Your task to perform on an android device: Open Chrome and go to settings Image 0: 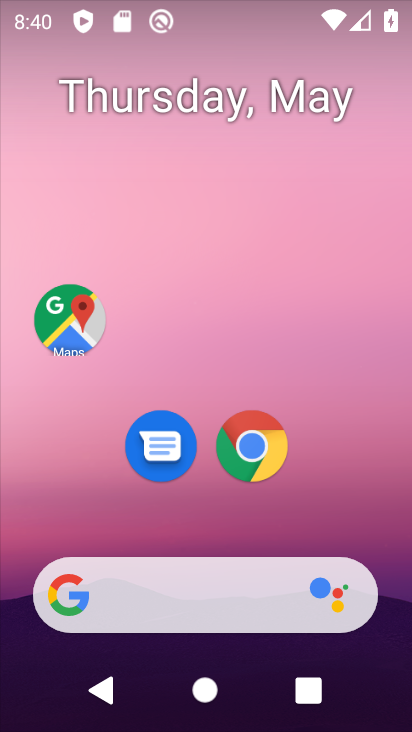
Step 0: click (249, 446)
Your task to perform on an android device: Open Chrome and go to settings Image 1: 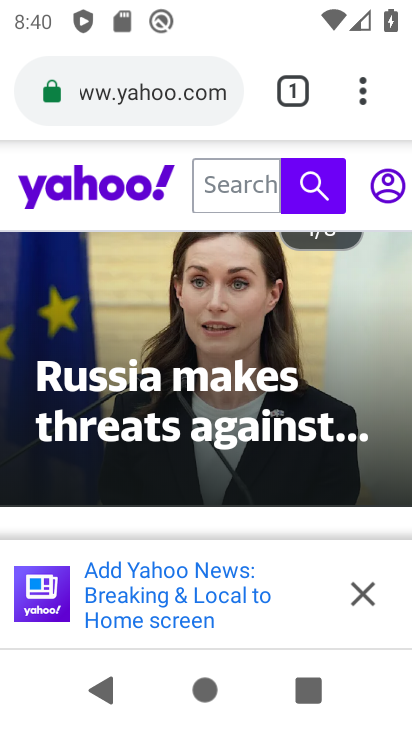
Step 1: click (363, 99)
Your task to perform on an android device: Open Chrome and go to settings Image 2: 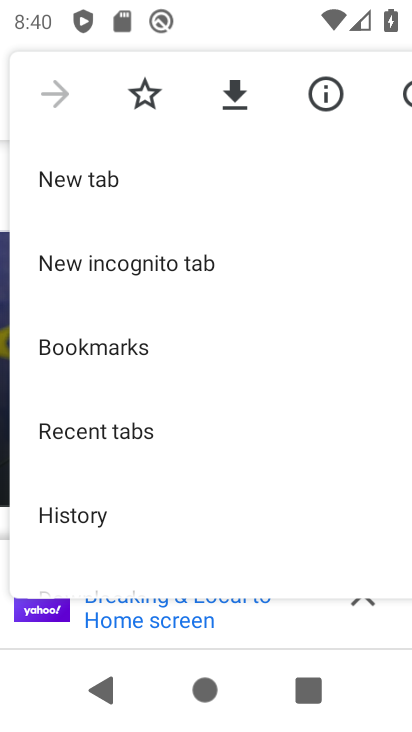
Step 2: drag from (169, 533) to (284, 89)
Your task to perform on an android device: Open Chrome and go to settings Image 3: 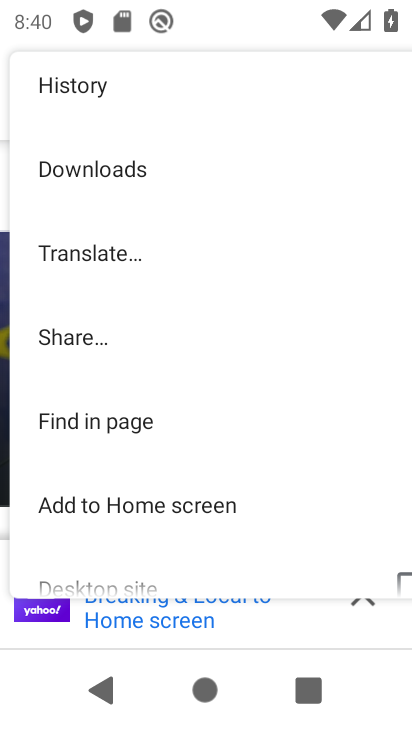
Step 3: drag from (263, 521) to (204, 100)
Your task to perform on an android device: Open Chrome and go to settings Image 4: 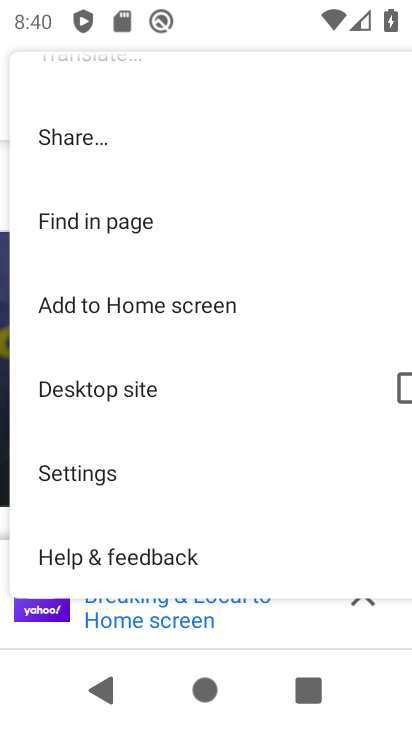
Step 4: click (77, 469)
Your task to perform on an android device: Open Chrome and go to settings Image 5: 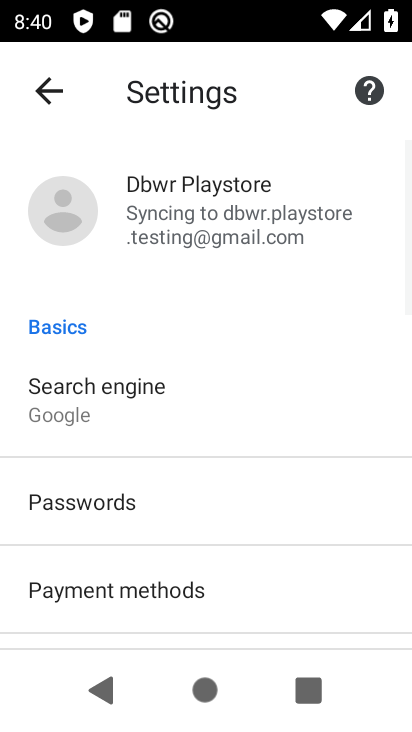
Step 5: task complete